Your task to perform on an android device: Do I have any events this weekend? Image 0: 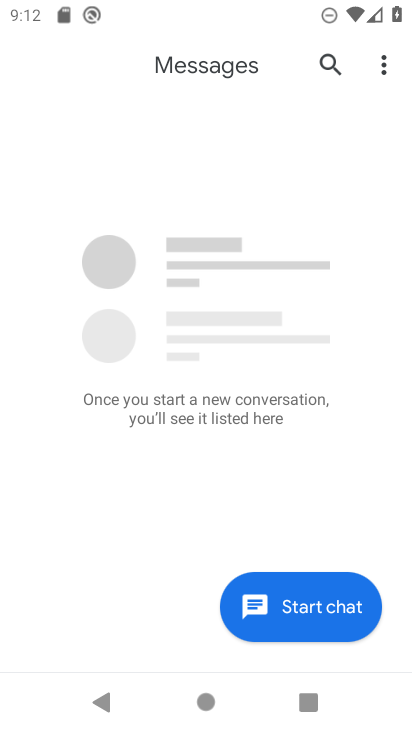
Step 0: press home button
Your task to perform on an android device: Do I have any events this weekend? Image 1: 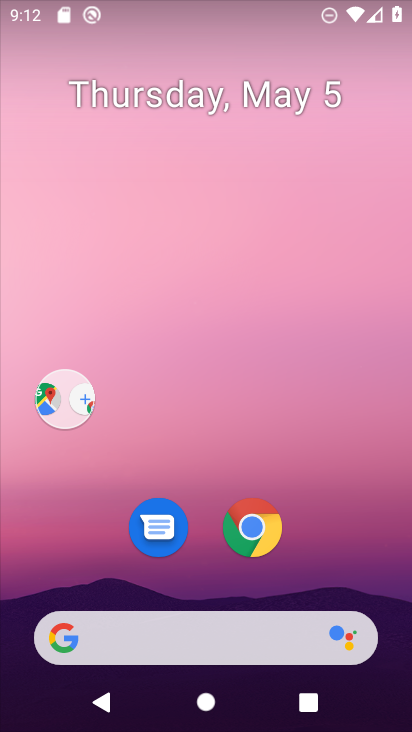
Step 1: drag from (371, 586) to (251, 5)
Your task to perform on an android device: Do I have any events this weekend? Image 2: 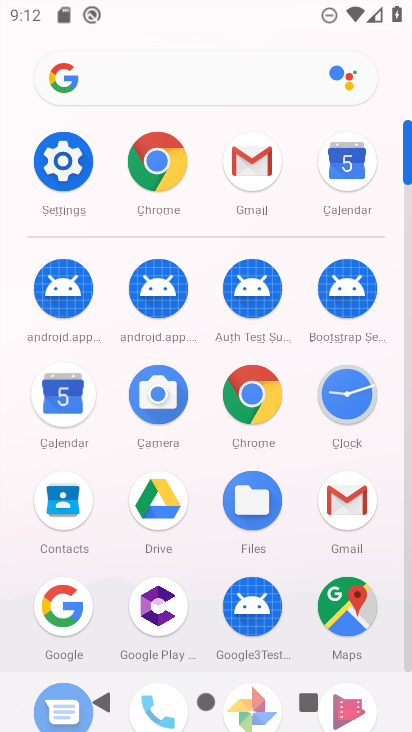
Step 2: click (58, 400)
Your task to perform on an android device: Do I have any events this weekend? Image 3: 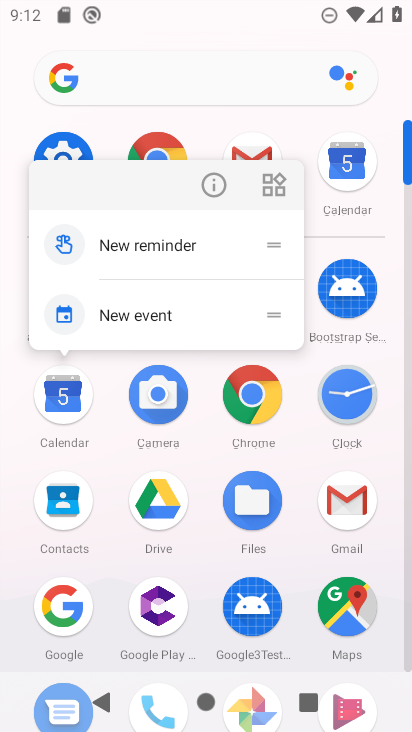
Step 3: click (54, 396)
Your task to perform on an android device: Do I have any events this weekend? Image 4: 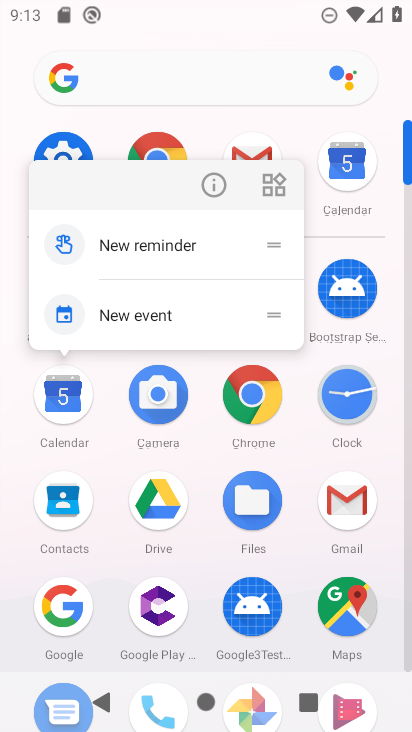
Step 4: click (108, 322)
Your task to perform on an android device: Do I have any events this weekend? Image 5: 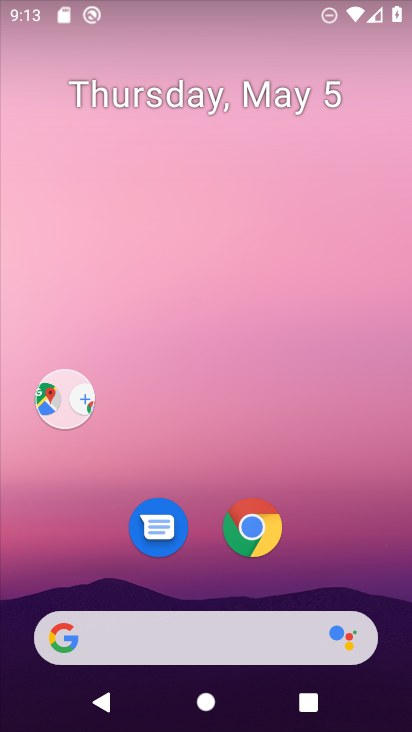
Step 5: drag from (348, 544) to (238, 19)
Your task to perform on an android device: Do I have any events this weekend? Image 6: 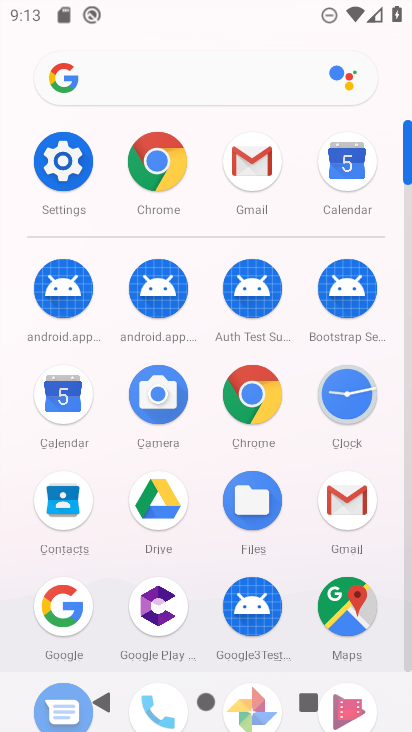
Step 6: click (58, 400)
Your task to perform on an android device: Do I have any events this weekend? Image 7: 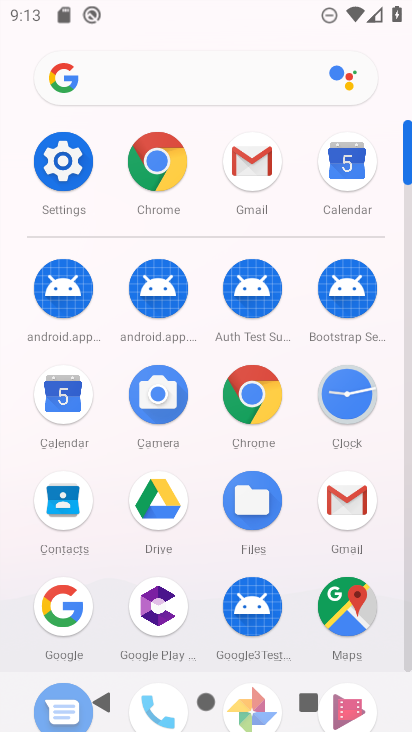
Step 7: click (58, 400)
Your task to perform on an android device: Do I have any events this weekend? Image 8: 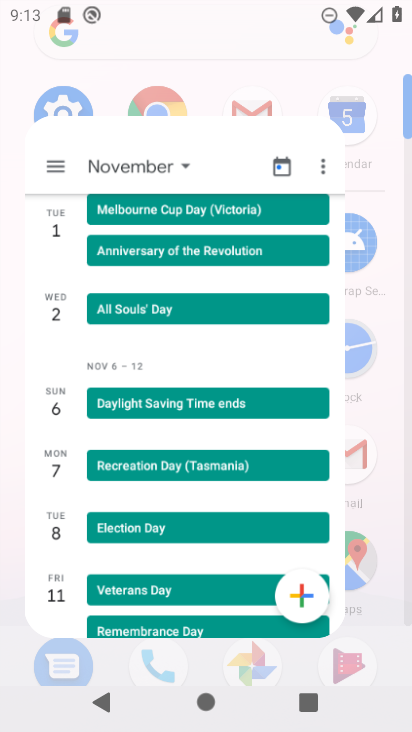
Step 8: click (60, 399)
Your task to perform on an android device: Do I have any events this weekend? Image 9: 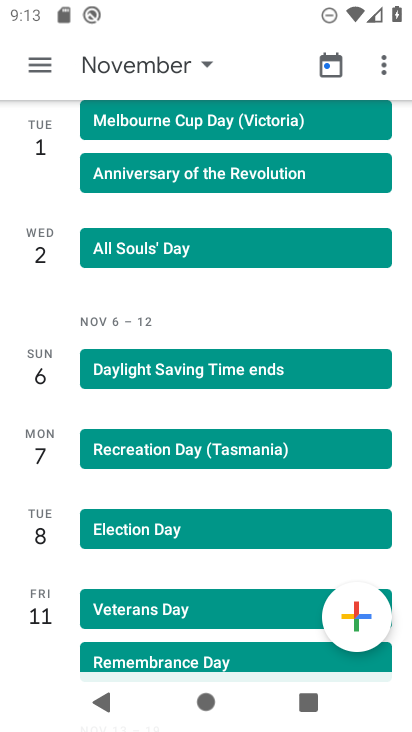
Step 9: click (60, 399)
Your task to perform on an android device: Do I have any events this weekend? Image 10: 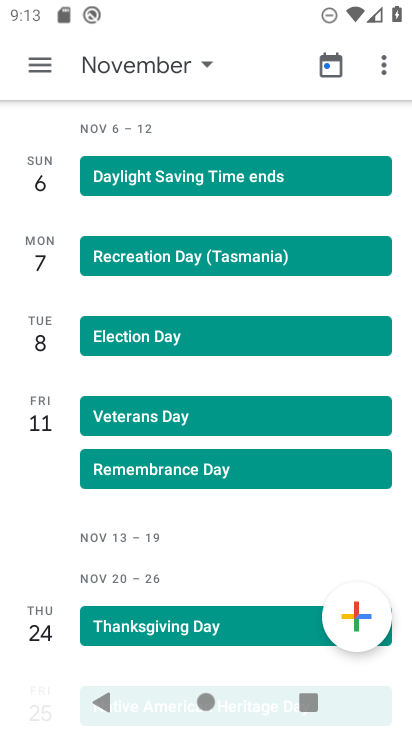
Step 10: click (202, 61)
Your task to perform on an android device: Do I have any events this weekend? Image 11: 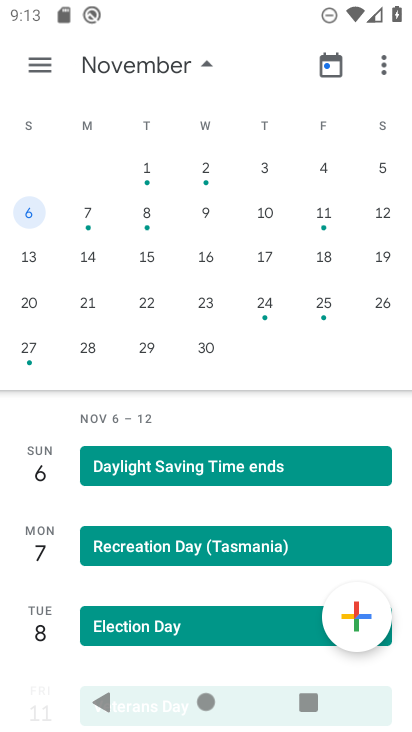
Step 11: drag from (86, 251) to (96, 29)
Your task to perform on an android device: Do I have any events this weekend? Image 12: 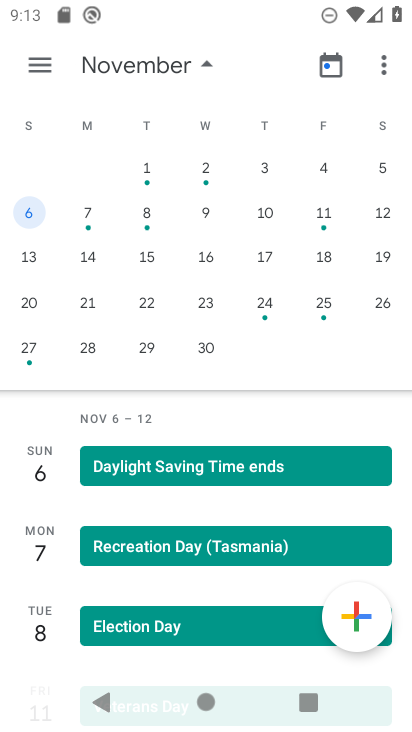
Step 12: drag from (116, 300) to (316, 230)
Your task to perform on an android device: Do I have any events this weekend? Image 13: 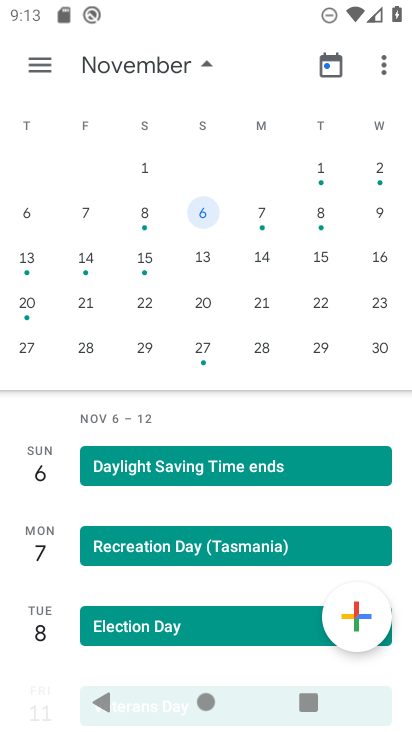
Step 13: drag from (8, 194) to (362, 203)
Your task to perform on an android device: Do I have any events this weekend? Image 14: 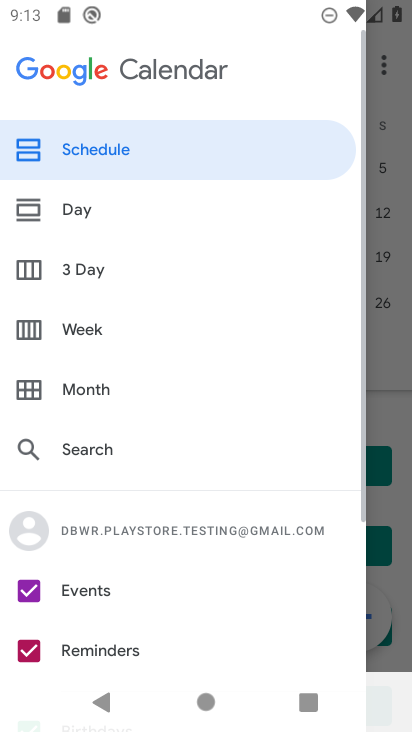
Step 14: drag from (123, 206) to (403, 178)
Your task to perform on an android device: Do I have any events this weekend? Image 15: 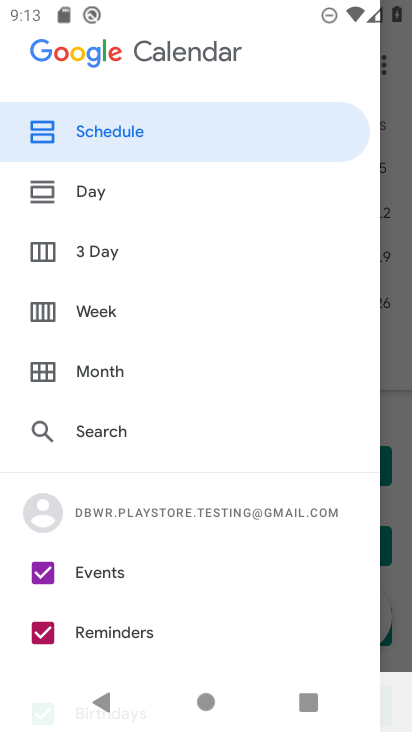
Step 15: click (145, 137)
Your task to perform on an android device: Do I have any events this weekend? Image 16: 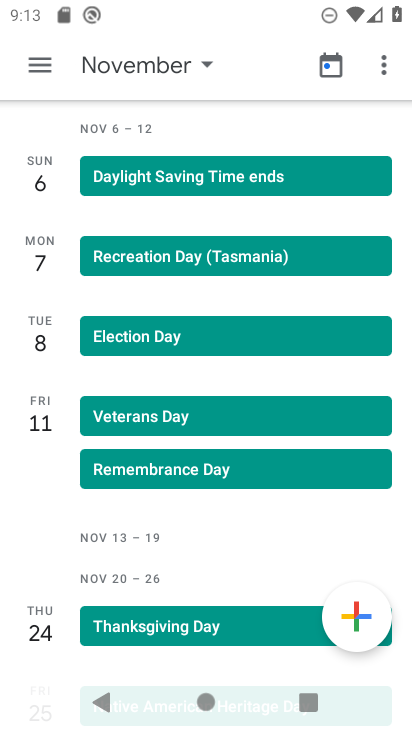
Step 16: click (203, 70)
Your task to perform on an android device: Do I have any events this weekend? Image 17: 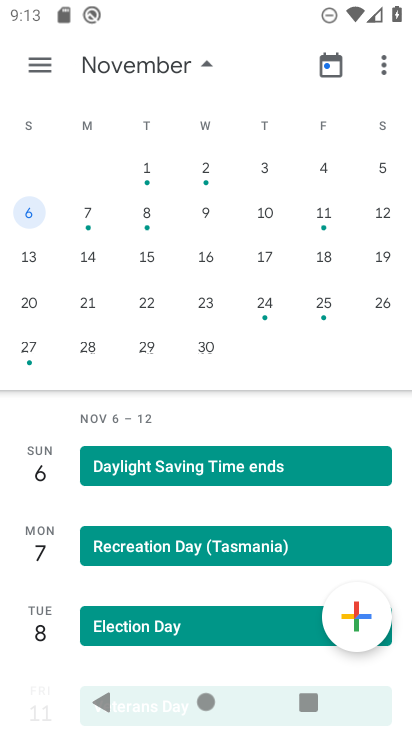
Step 17: drag from (56, 248) to (385, 240)
Your task to perform on an android device: Do I have any events this weekend? Image 18: 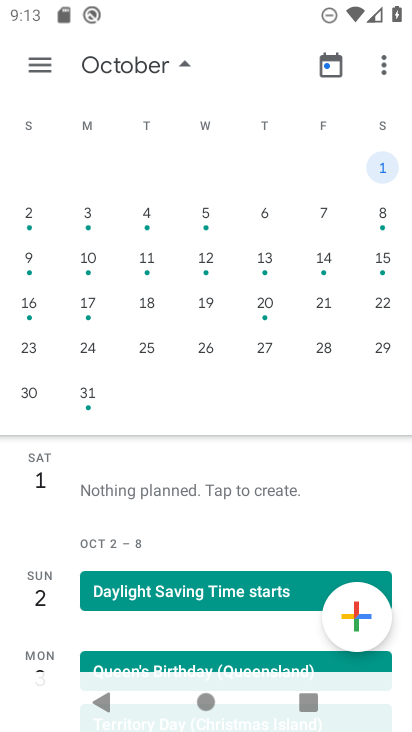
Step 18: drag from (72, 259) to (336, 277)
Your task to perform on an android device: Do I have any events this weekend? Image 19: 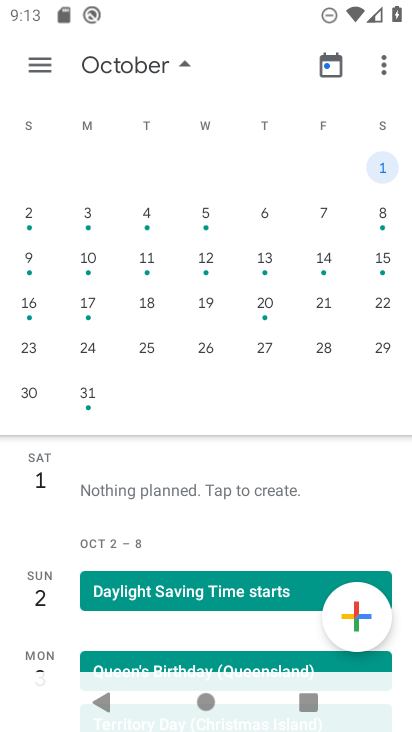
Step 19: drag from (21, 292) to (403, 252)
Your task to perform on an android device: Do I have any events this weekend? Image 20: 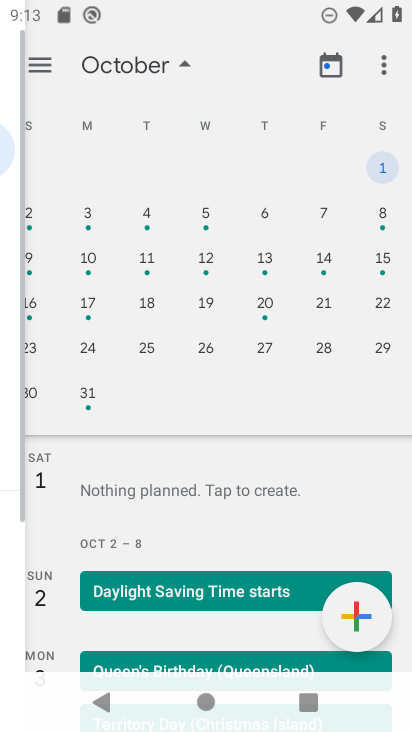
Step 20: drag from (68, 206) to (408, 212)
Your task to perform on an android device: Do I have any events this weekend? Image 21: 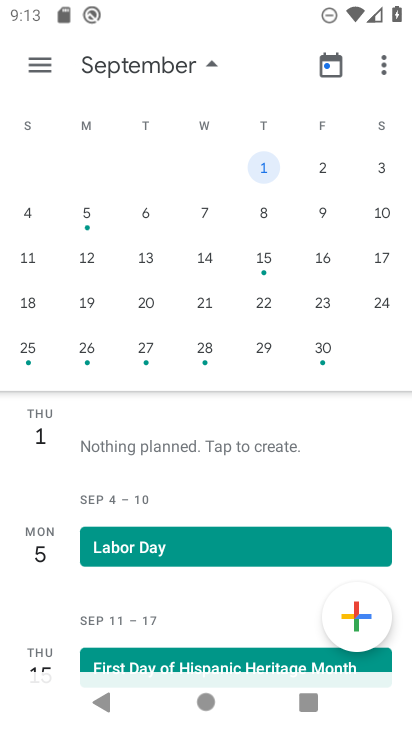
Step 21: drag from (110, 242) to (411, 204)
Your task to perform on an android device: Do I have any events this weekend? Image 22: 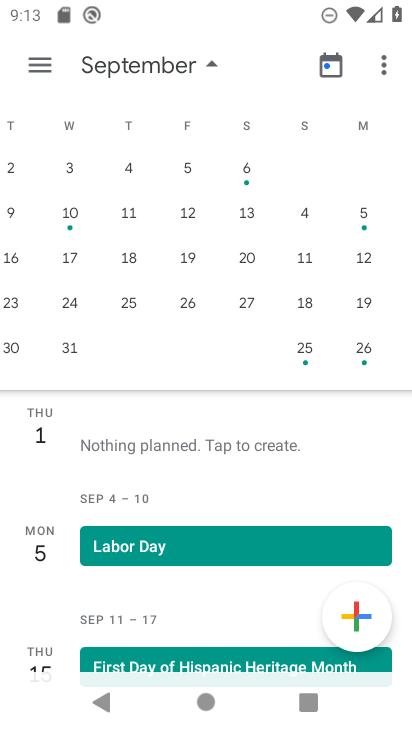
Step 22: drag from (106, 273) to (389, 268)
Your task to perform on an android device: Do I have any events this weekend? Image 23: 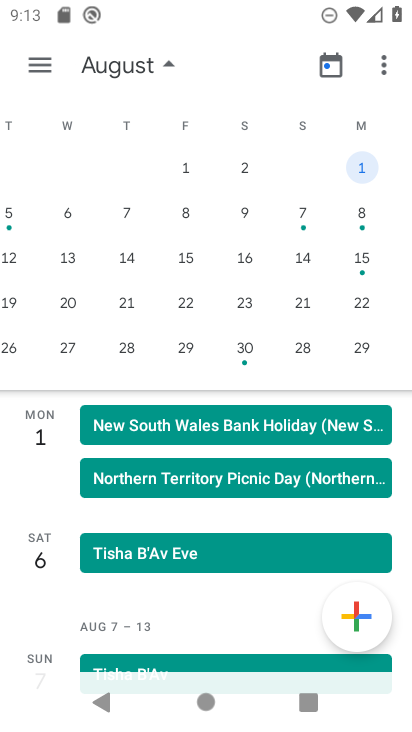
Step 23: drag from (54, 292) to (395, 271)
Your task to perform on an android device: Do I have any events this weekend? Image 24: 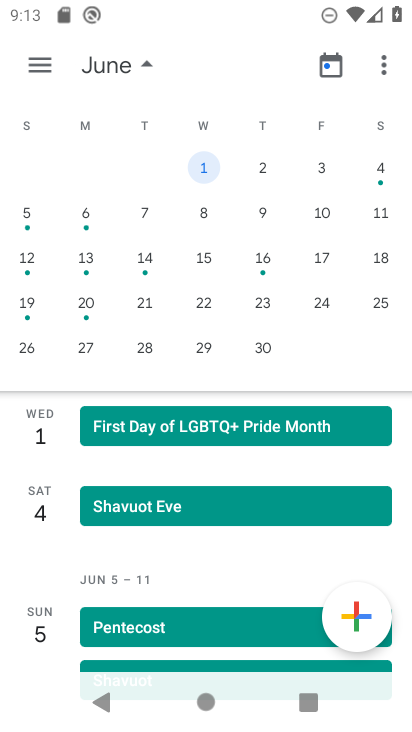
Step 24: drag from (67, 260) to (410, 239)
Your task to perform on an android device: Do I have any events this weekend? Image 25: 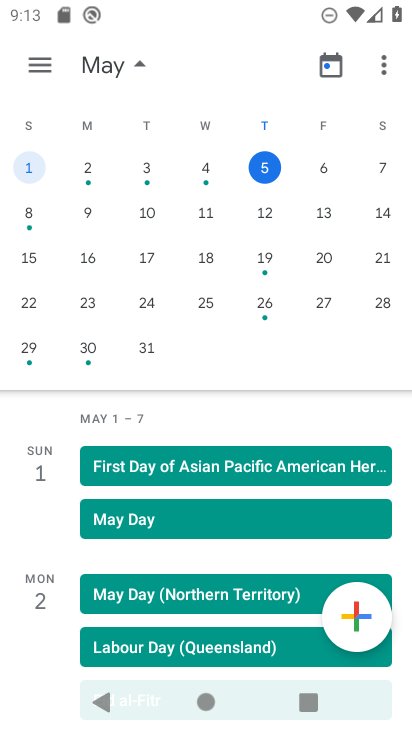
Step 25: drag from (76, 247) to (398, 235)
Your task to perform on an android device: Do I have any events this weekend? Image 26: 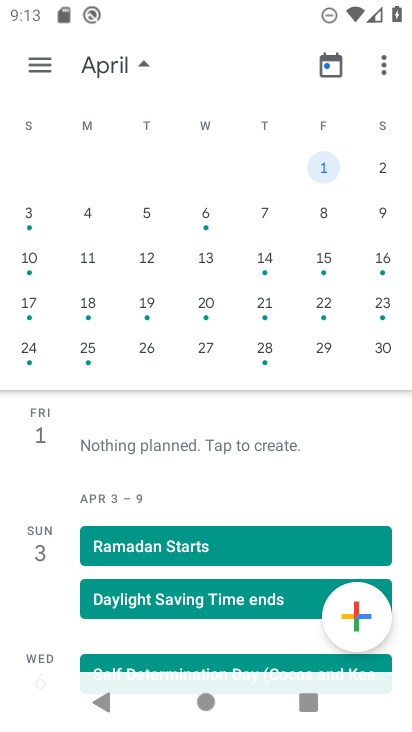
Step 26: drag from (292, 238) to (4, 256)
Your task to perform on an android device: Do I have any events this weekend? Image 27: 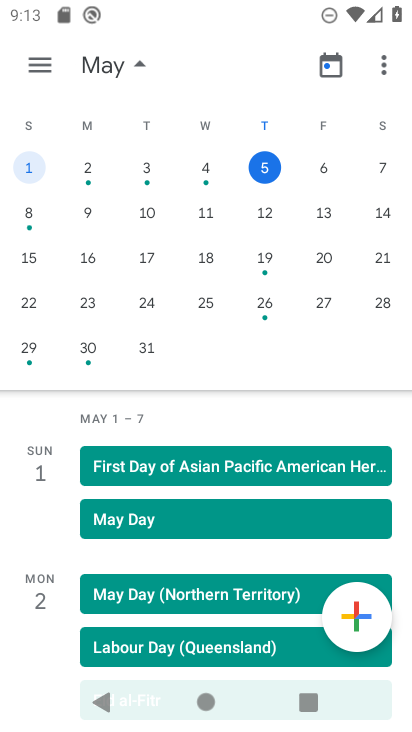
Step 27: drag from (167, 598) to (148, 179)
Your task to perform on an android device: Do I have any events this weekend? Image 28: 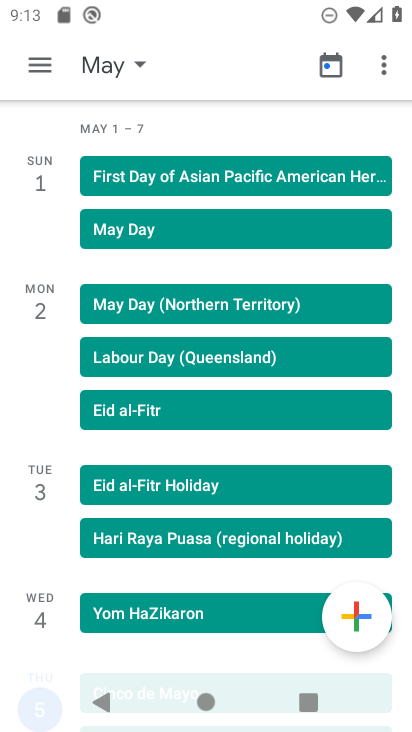
Step 28: drag from (123, 548) to (129, 171)
Your task to perform on an android device: Do I have any events this weekend? Image 29: 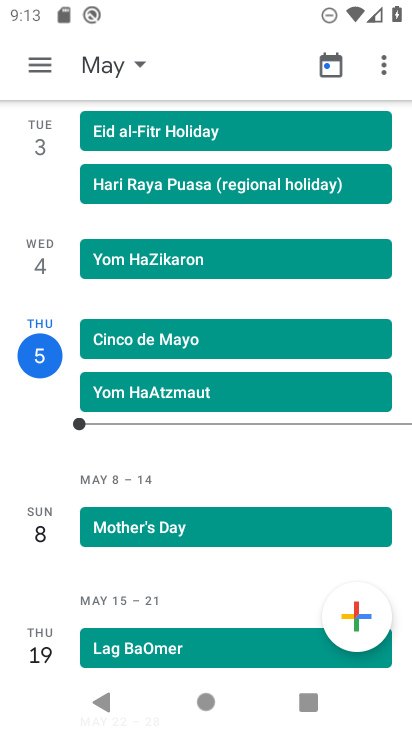
Step 29: drag from (151, 534) to (182, 170)
Your task to perform on an android device: Do I have any events this weekend? Image 30: 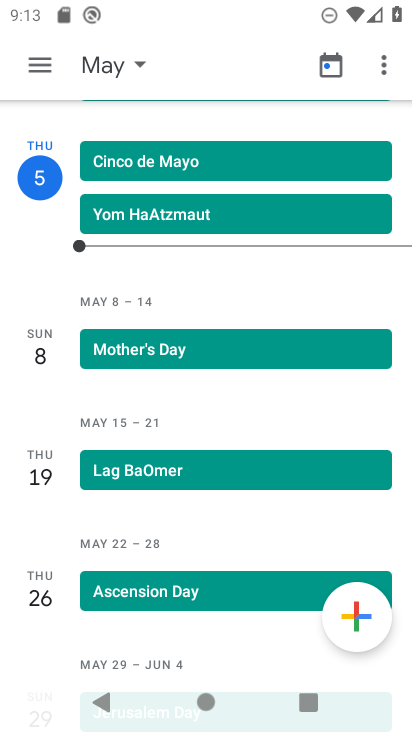
Step 30: click (127, 346)
Your task to perform on an android device: Do I have any events this weekend? Image 31: 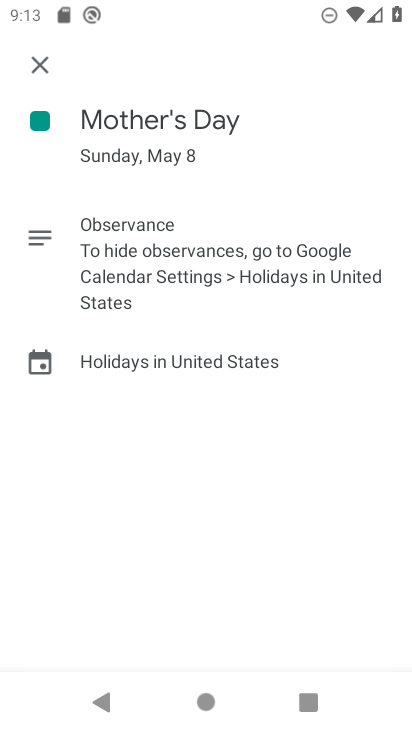
Step 31: task complete